Your task to perform on an android device: Open Android settings Image 0: 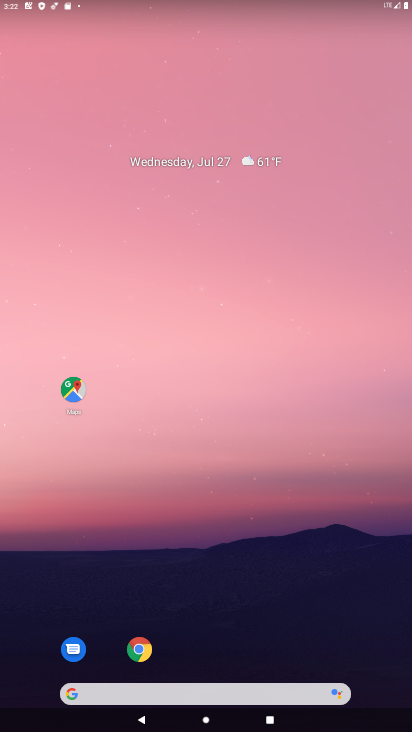
Step 0: drag from (176, 545) to (193, 250)
Your task to perform on an android device: Open Android settings Image 1: 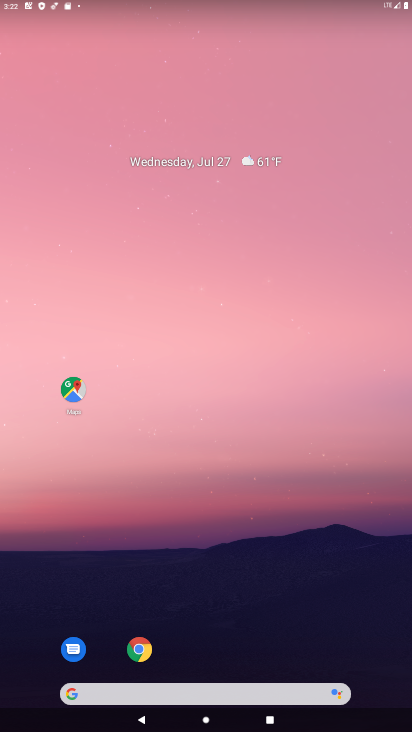
Step 1: drag from (217, 537) to (197, 99)
Your task to perform on an android device: Open Android settings Image 2: 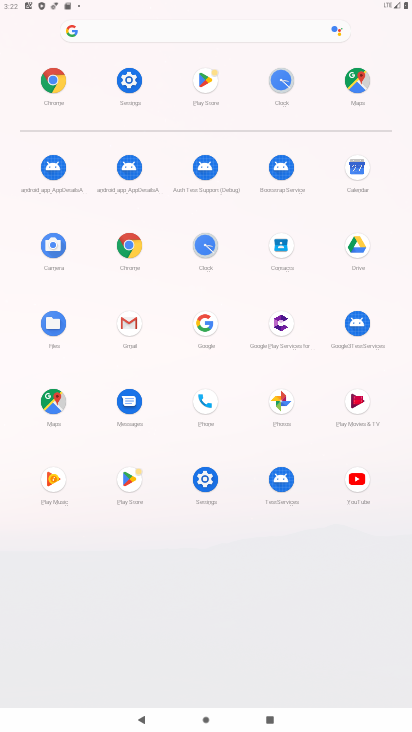
Step 2: click (133, 87)
Your task to perform on an android device: Open Android settings Image 3: 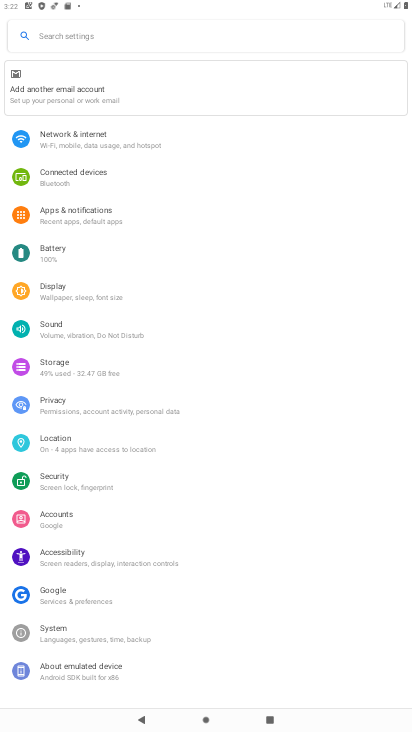
Step 3: click (54, 669)
Your task to perform on an android device: Open Android settings Image 4: 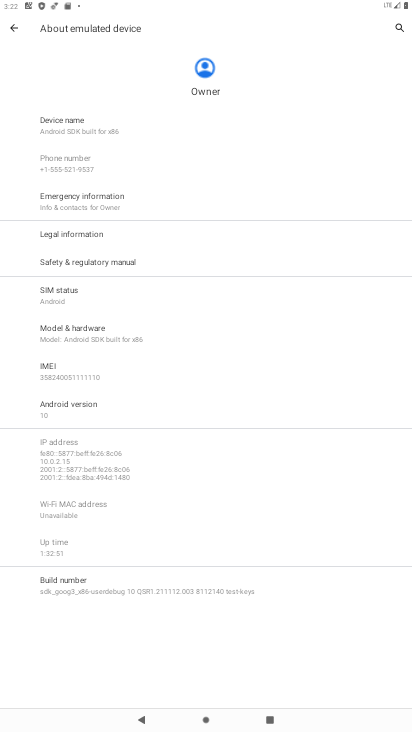
Step 4: click (61, 409)
Your task to perform on an android device: Open Android settings Image 5: 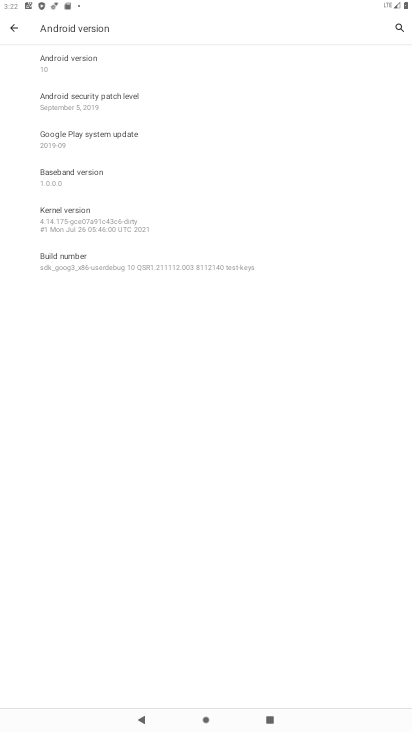
Step 5: task complete